Your task to perform on an android device: Open Yahoo.com Image 0: 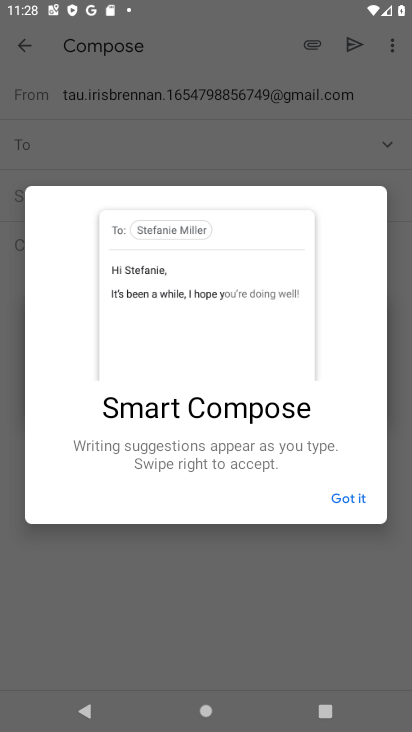
Step 0: press home button
Your task to perform on an android device: Open Yahoo.com Image 1: 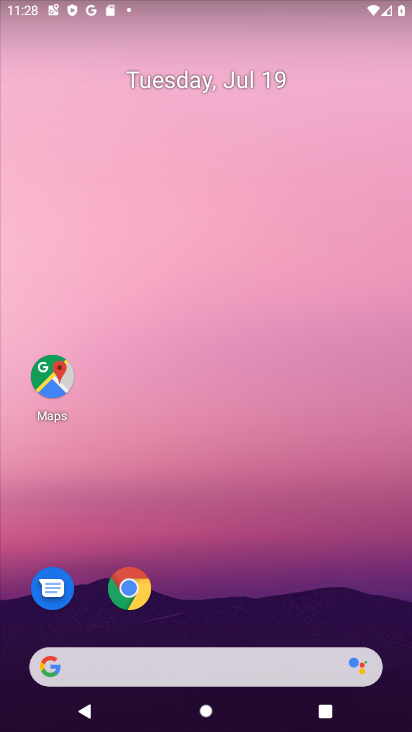
Step 1: drag from (247, 709) to (247, 218)
Your task to perform on an android device: Open Yahoo.com Image 2: 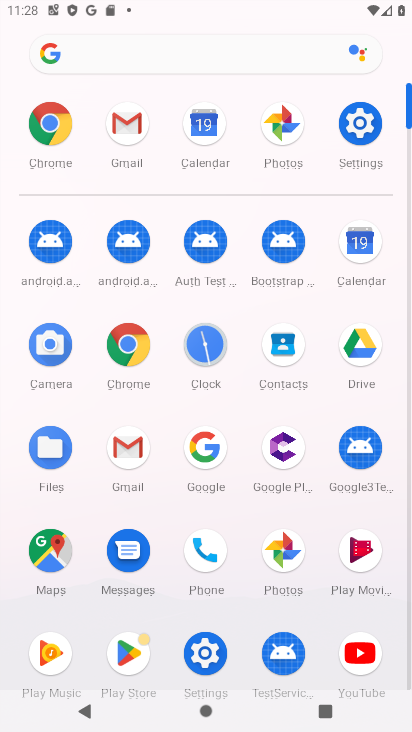
Step 2: click (129, 349)
Your task to perform on an android device: Open Yahoo.com Image 3: 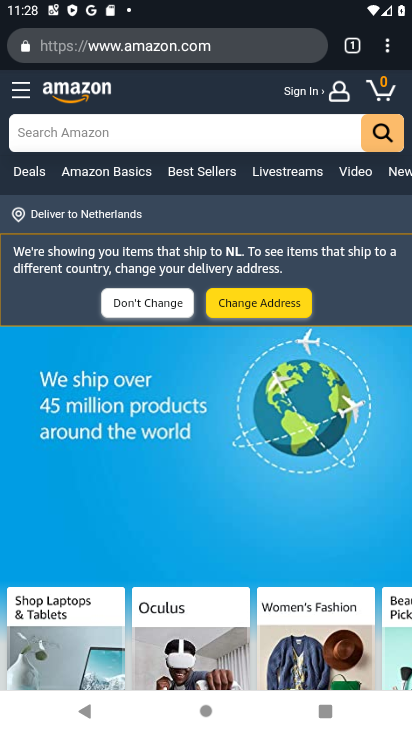
Step 3: click (388, 53)
Your task to perform on an android device: Open Yahoo.com Image 4: 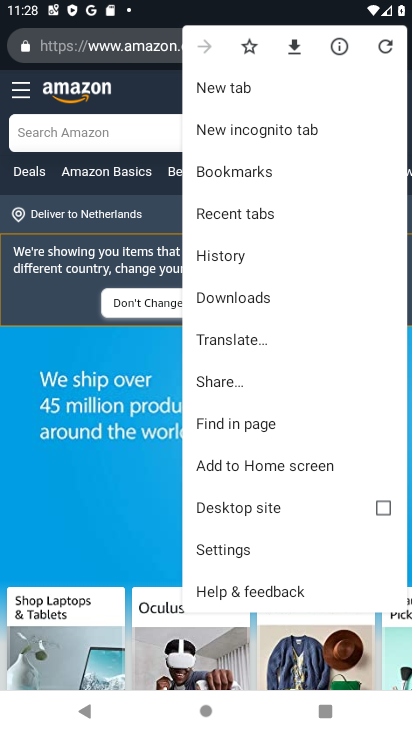
Step 4: click (228, 87)
Your task to perform on an android device: Open Yahoo.com Image 5: 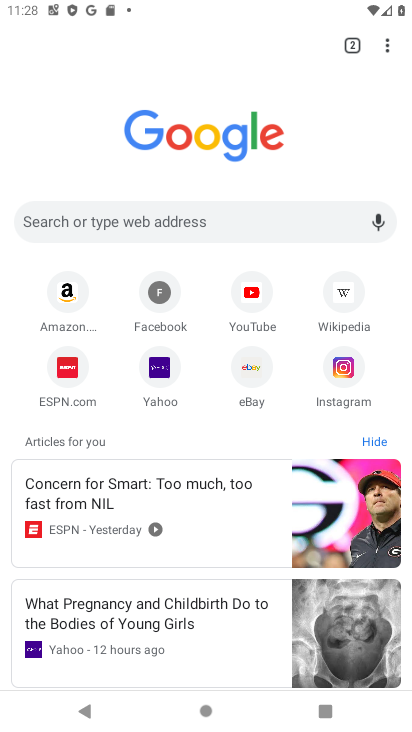
Step 5: click (162, 367)
Your task to perform on an android device: Open Yahoo.com Image 6: 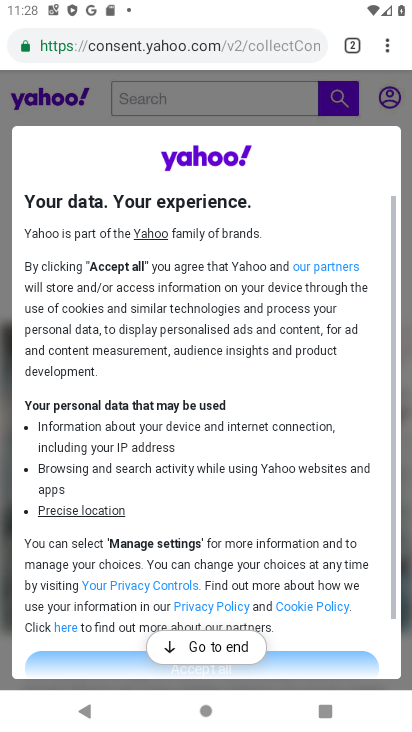
Step 6: task complete